Your task to perform on an android device: Open Youtube and go to the subscriptions tab Image 0: 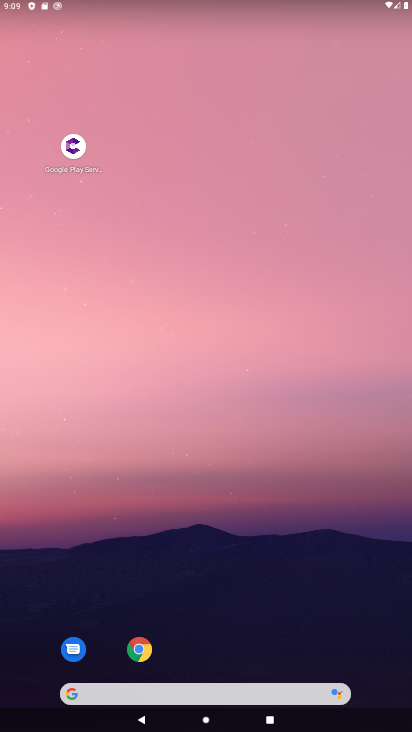
Step 0: drag from (16, 704) to (215, 329)
Your task to perform on an android device: Open Youtube and go to the subscriptions tab Image 1: 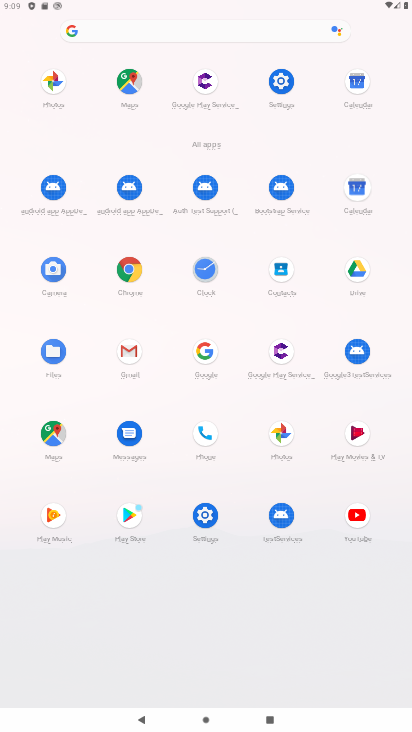
Step 1: click (366, 508)
Your task to perform on an android device: Open Youtube and go to the subscriptions tab Image 2: 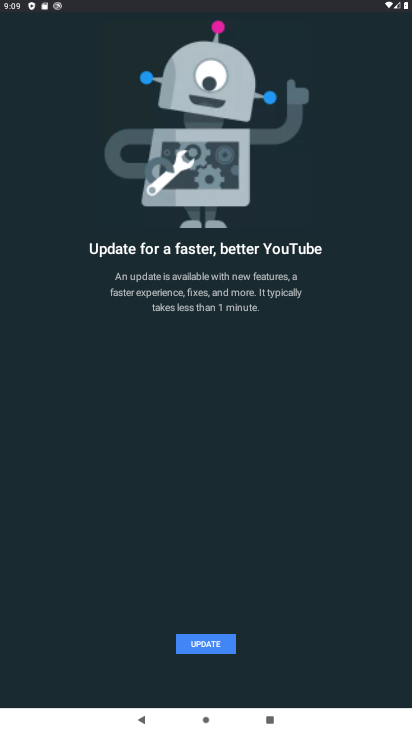
Step 2: click (203, 635)
Your task to perform on an android device: Open Youtube and go to the subscriptions tab Image 3: 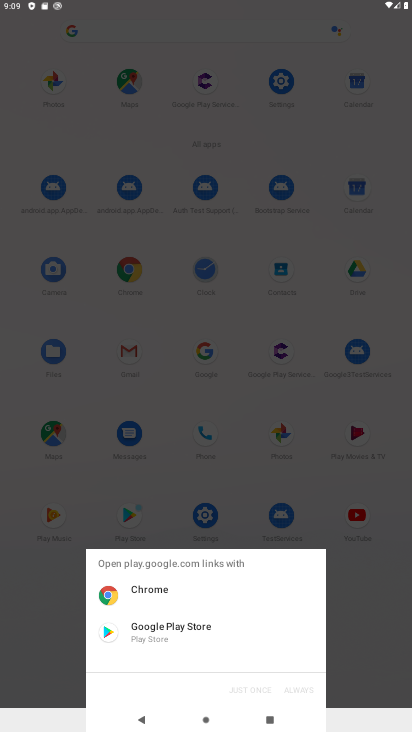
Step 3: click (171, 637)
Your task to perform on an android device: Open Youtube and go to the subscriptions tab Image 4: 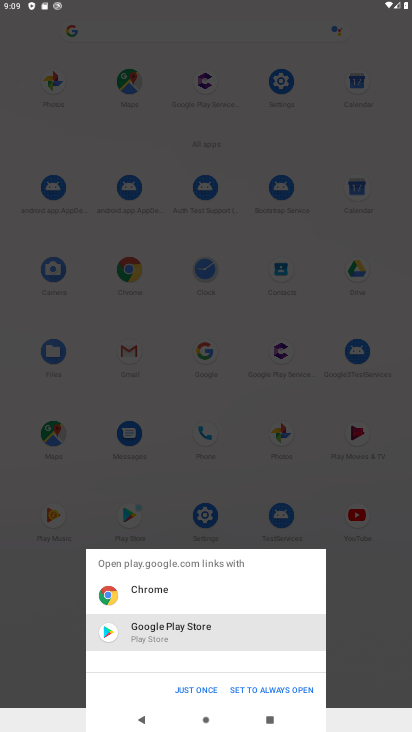
Step 4: click (194, 702)
Your task to perform on an android device: Open Youtube and go to the subscriptions tab Image 5: 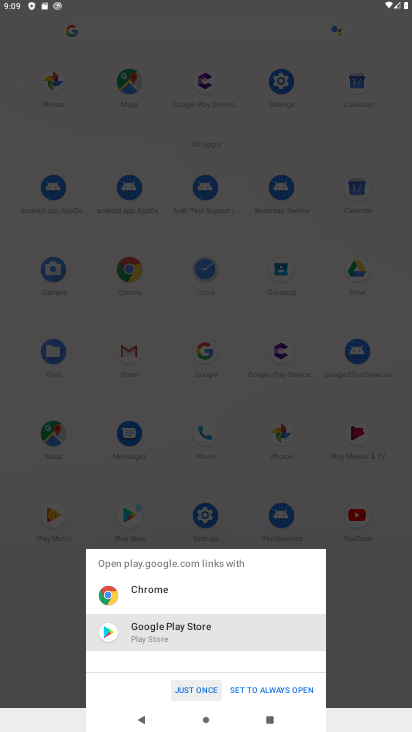
Step 5: click (194, 687)
Your task to perform on an android device: Open Youtube and go to the subscriptions tab Image 6: 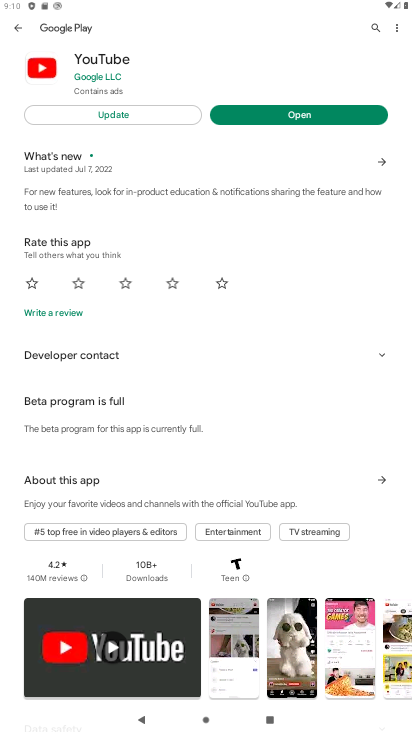
Step 6: click (288, 110)
Your task to perform on an android device: Open Youtube and go to the subscriptions tab Image 7: 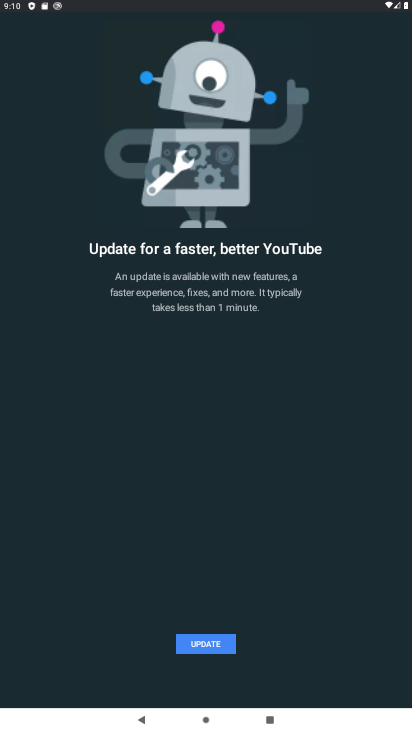
Step 7: task complete